Your task to perform on an android device: change timer sound Image 0: 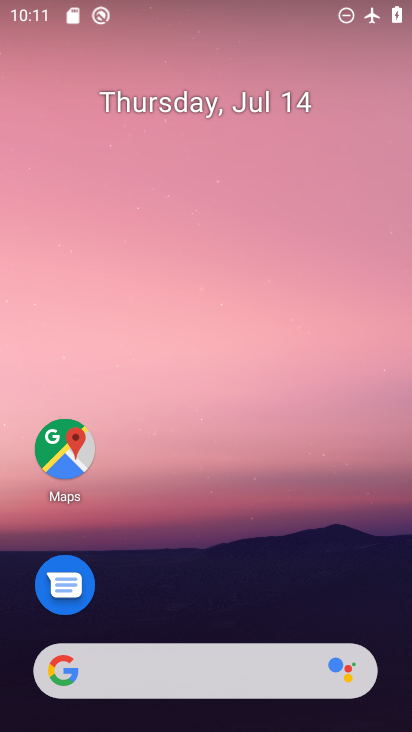
Step 0: drag from (240, 599) to (194, 66)
Your task to perform on an android device: change timer sound Image 1: 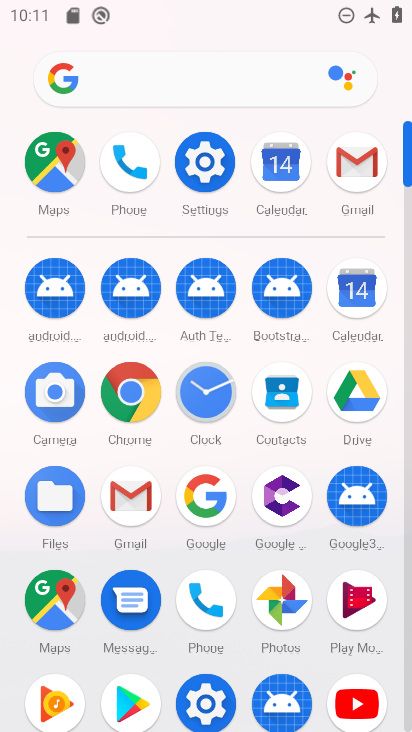
Step 1: click (213, 403)
Your task to perform on an android device: change timer sound Image 2: 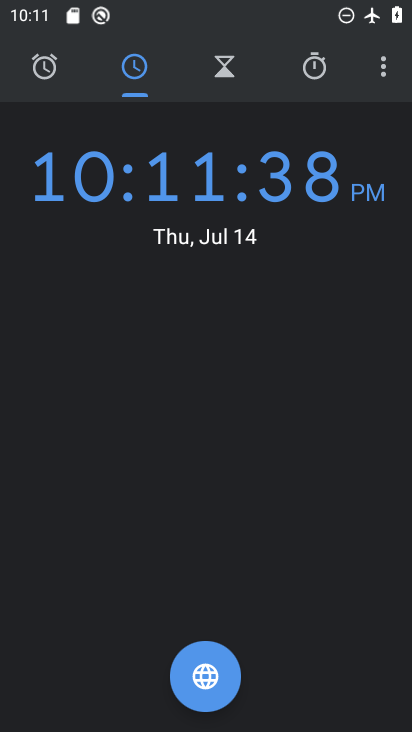
Step 2: click (396, 63)
Your task to perform on an android device: change timer sound Image 3: 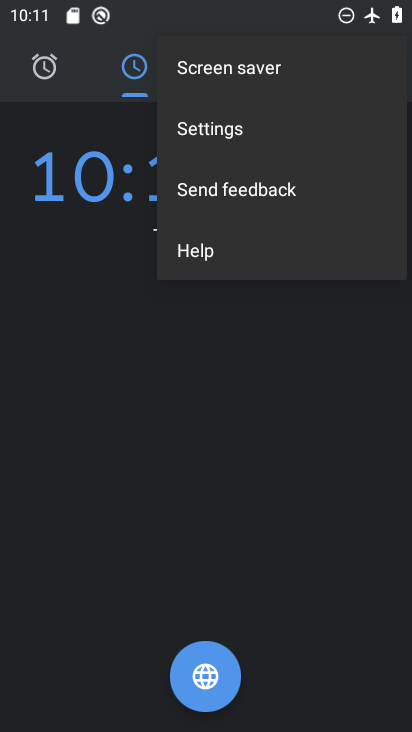
Step 3: click (210, 142)
Your task to perform on an android device: change timer sound Image 4: 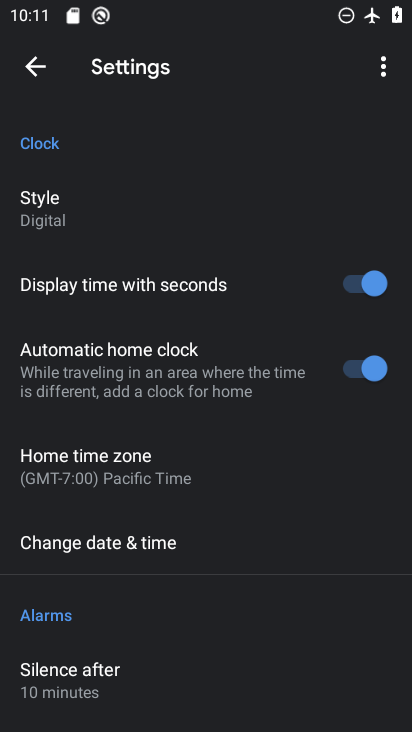
Step 4: drag from (192, 562) to (95, 1)
Your task to perform on an android device: change timer sound Image 5: 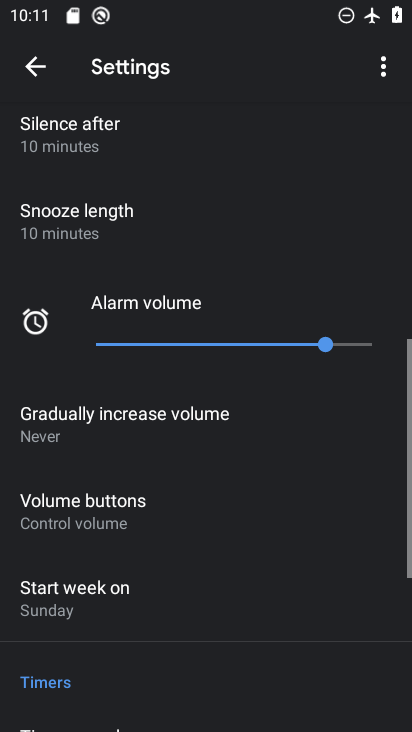
Step 5: drag from (209, 521) to (140, 143)
Your task to perform on an android device: change timer sound Image 6: 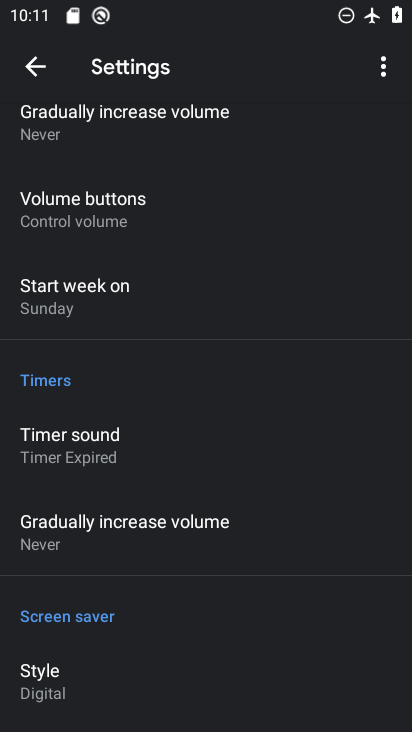
Step 6: click (86, 457)
Your task to perform on an android device: change timer sound Image 7: 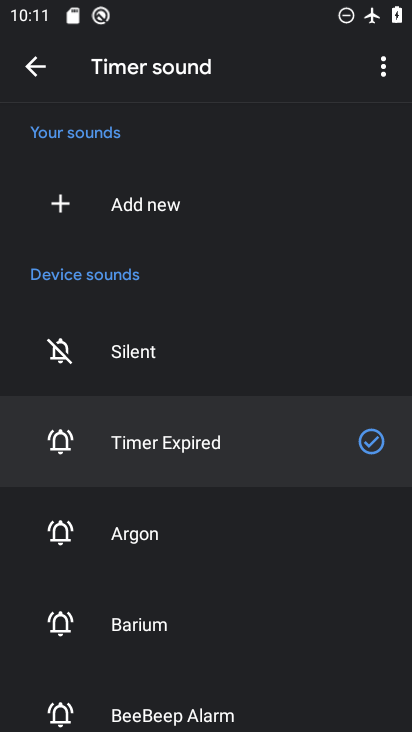
Step 7: click (112, 531)
Your task to perform on an android device: change timer sound Image 8: 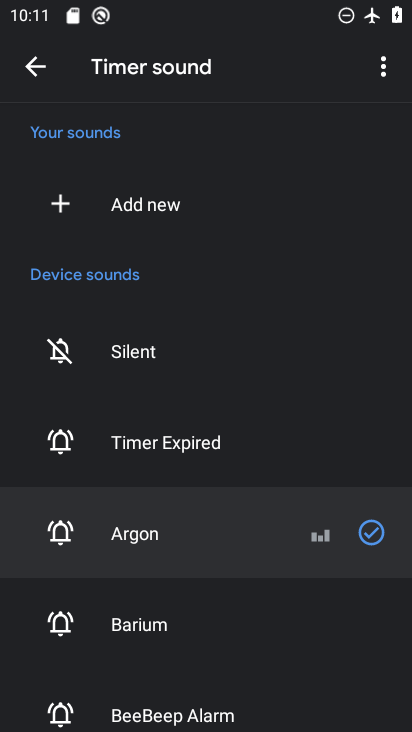
Step 8: task complete